Your task to perform on an android device: find which apps use the phone's location Image 0: 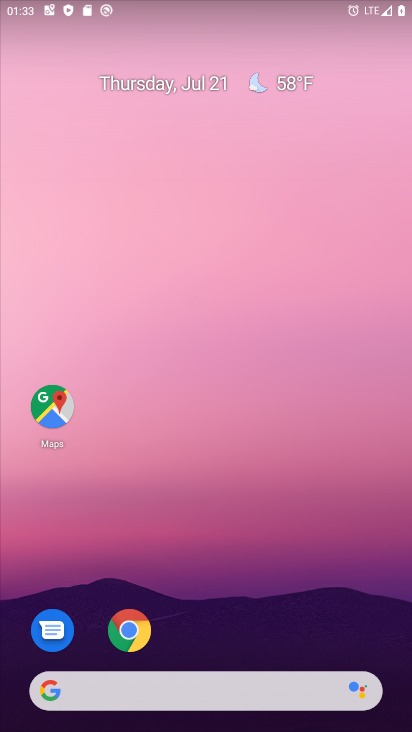
Step 0: drag from (244, 651) to (218, 47)
Your task to perform on an android device: find which apps use the phone's location Image 1: 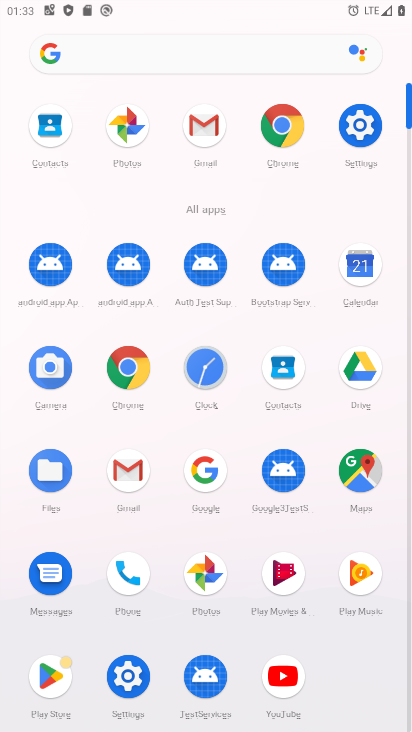
Step 1: click (352, 109)
Your task to perform on an android device: find which apps use the phone's location Image 2: 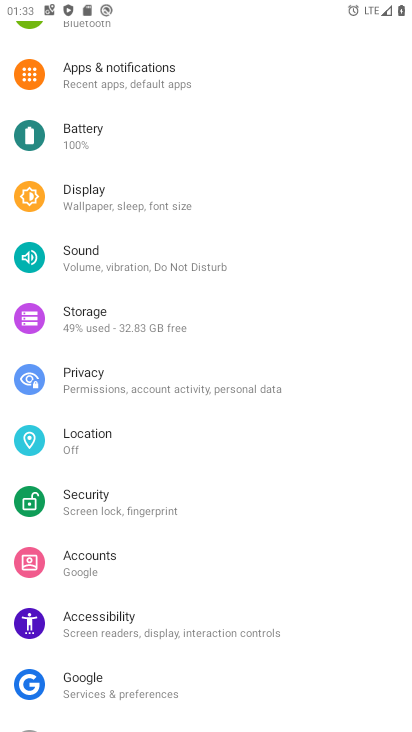
Step 2: click (75, 446)
Your task to perform on an android device: find which apps use the phone's location Image 3: 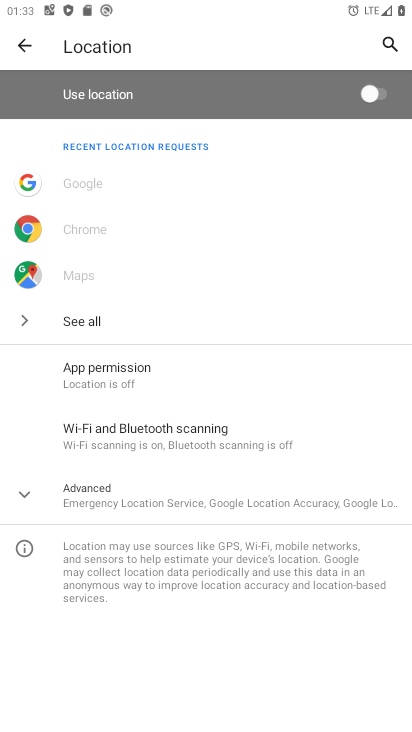
Step 3: click (74, 331)
Your task to perform on an android device: find which apps use the phone's location Image 4: 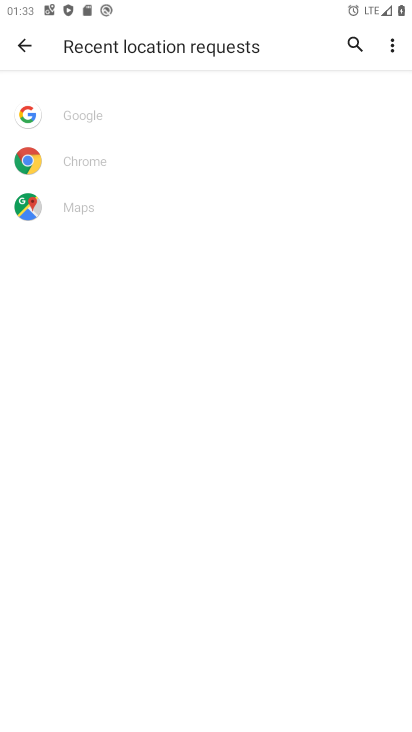
Step 4: task complete